Your task to perform on an android device: Search for seafood restaurants on Google Maps Image 0: 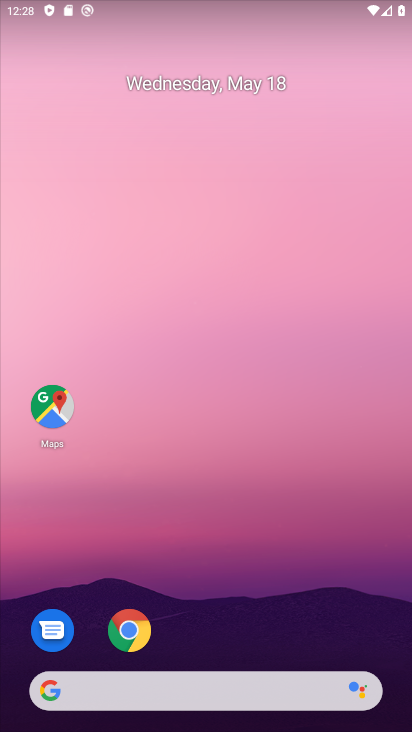
Step 0: click (64, 416)
Your task to perform on an android device: Search for seafood restaurants on Google Maps Image 1: 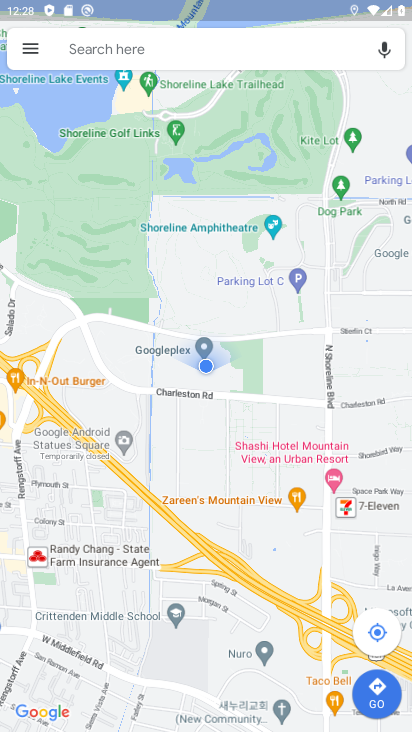
Step 1: click (166, 55)
Your task to perform on an android device: Search for seafood restaurants on Google Maps Image 2: 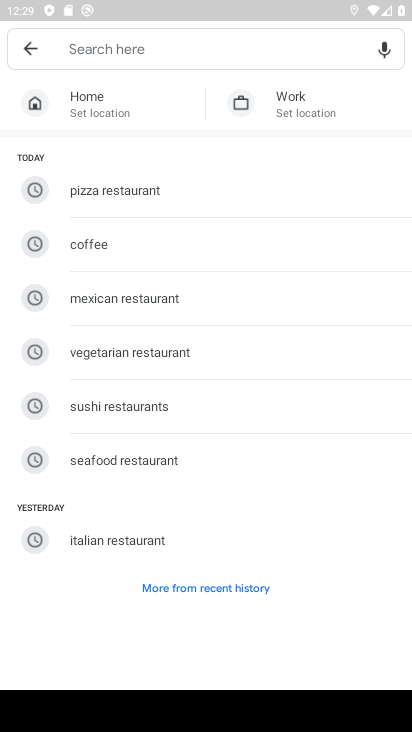
Step 2: type "seafood restaurants"
Your task to perform on an android device: Search for seafood restaurants on Google Maps Image 3: 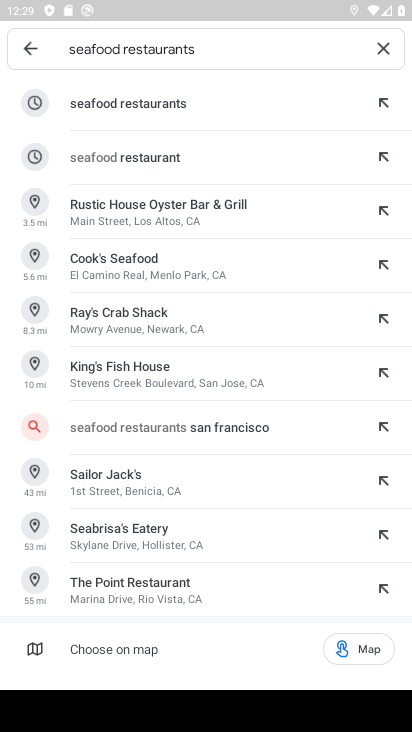
Step 3: click (273, 124)
Your task to perform on an android device: Search for seafood restaurants on Google Maps Image 4: 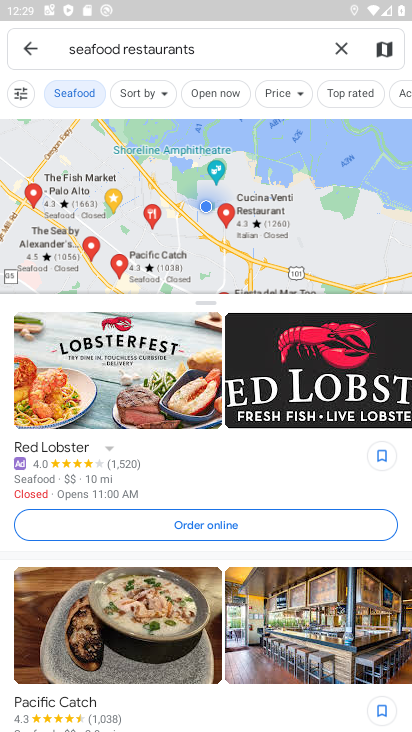
Step 4: task complete